Your task to perform on an android device: change keyboard looks Image 0: 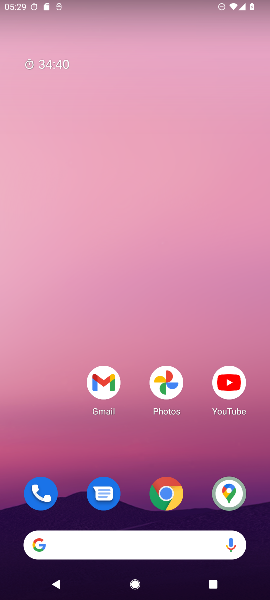
Step 0: press home button
Your task to perform on an android device: change keyboard looks Image 1: 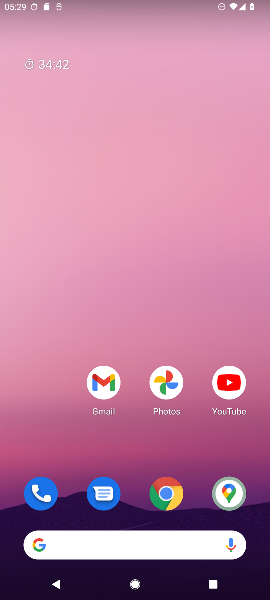
Step 1: drag from (65, 462) to (63, 163)
Your task to perform on an android device: change keyboard looks Image 2: 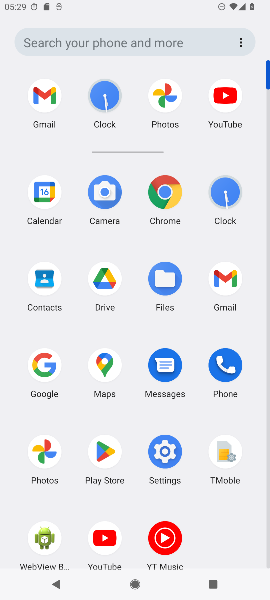
Step 2: click (164, 456)
Your task to perform on an android device: change keyboard looks Image 3: 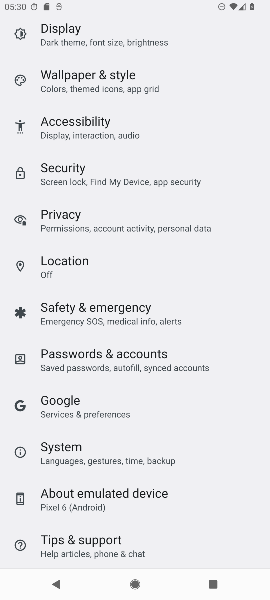
Step 3: drag from (237, 241) to (244, 330)
Your task to perform on an android device: change keyboard looks Image 4: 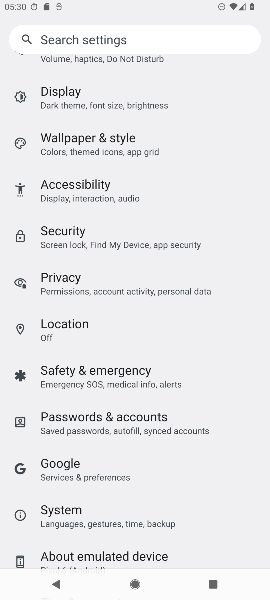
Step 4: drag from (242, 181) to (246, 289)
Your task to perform on an android device: change keyboard looks Image 5: 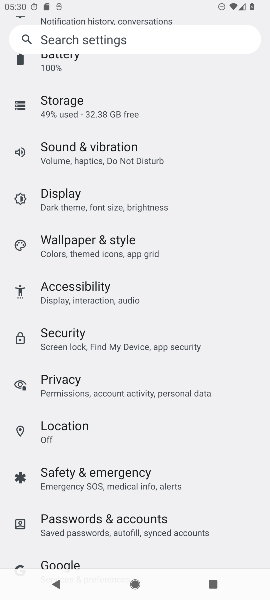
Step 5: drag from (225, 116) to (234, 261)
Your task to perform on an android device: change keyboard looks Image 6: 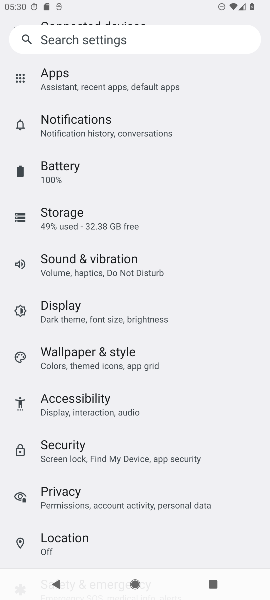
Step 6: drag from (226, 112) to (238, 241)
Your task to perform on an android device: change keyboard looks Image 7: 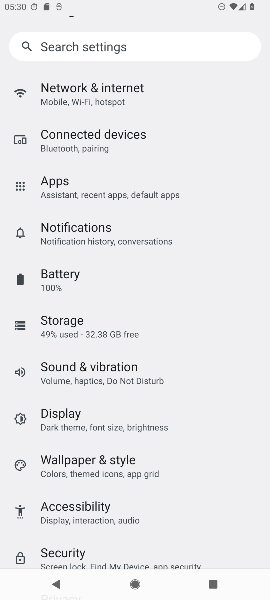
Step 7: drag from (213, 343) to (230, 255)
Your task to perform on an android device: change keyboard looks Image 8: 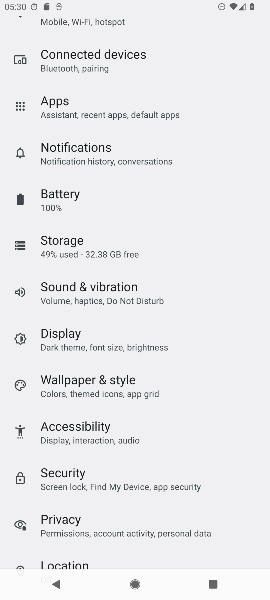
Step 8: drag from (226, 364) to (241, 275)
Your task to perform on an android device: change keyboard looks Image 9: 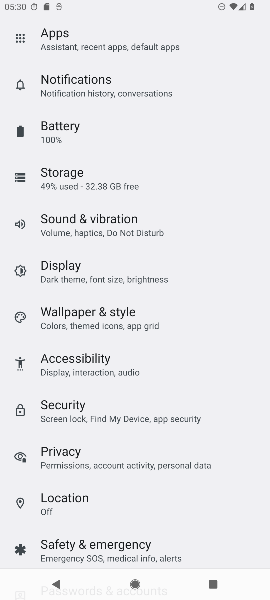
Step 9: drag from (233, 381) to (235, 291)
Your task to perform on an android device: change keyboard looks Image 10: 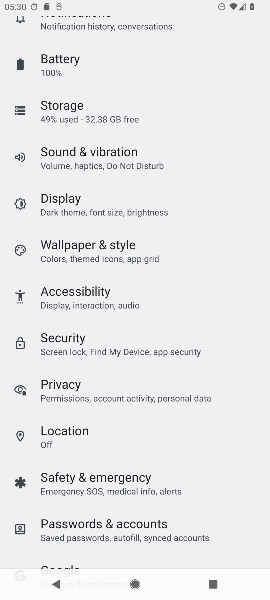
Step 10: drag from (230, 422) to (239, 296)
Your task to perform on an android device: change keyboard looks Image 11: 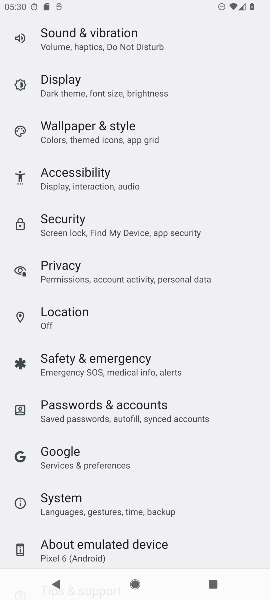
Step 11: drag from (195, 391) to (188, 261)
Your task to perform on an android device: change keyboard looks Image 12: 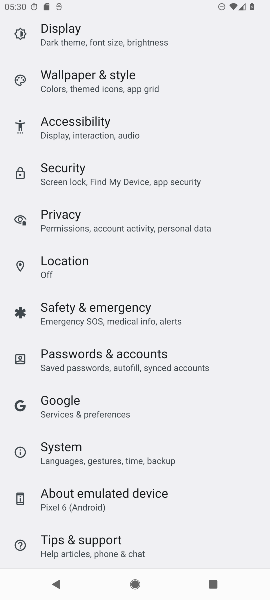
Step 12: click (163, 461)
Your task to perform on an android device: change keyboard looks Image 13: 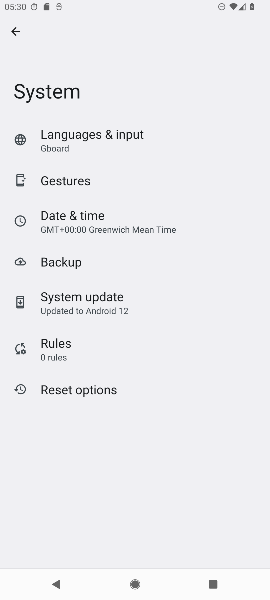
Step 13: click (105, 140)
Your task to perform on an android device: change keyboard looks Image 14: 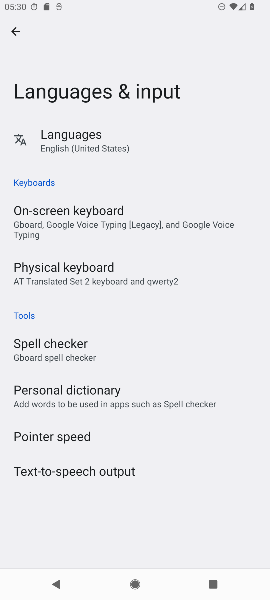
Step 14: click (108, 207)
Your task to perform on an android device: change keyboard looks Image 15: 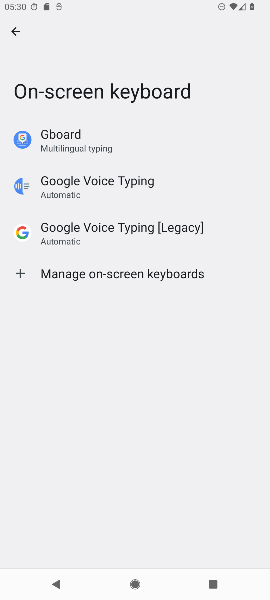
Step 15: click (88, 139)
Your task to perform on an android device: change keyboard looks Image 16: 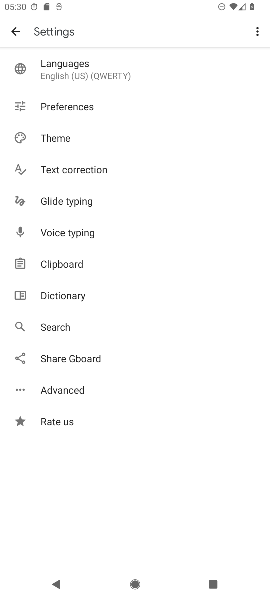
Step 16: click (72, 139)
Your task to perform on an android device: change keyboard looks Image 17: 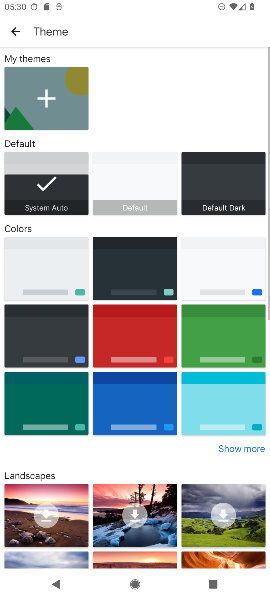
Step 17: click (145, 331)
Your task to perform on an android device: change keyboard looks Image 18: 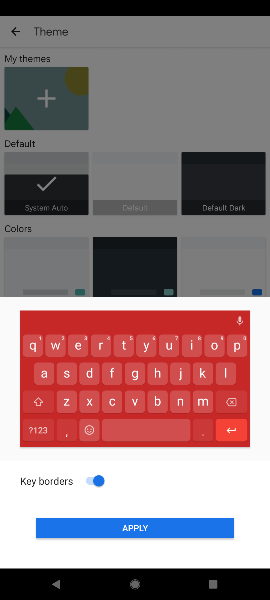
Step 18: click (183, 527)
Your task to perform on an android device: change keyboard looks Image 19: 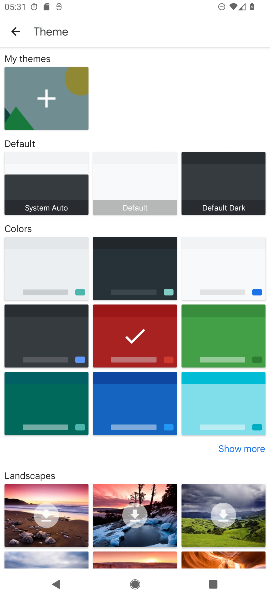
Step 19: task complete